Your task to perform on an android device: turn on showing notifications on the lock screen Image 0: 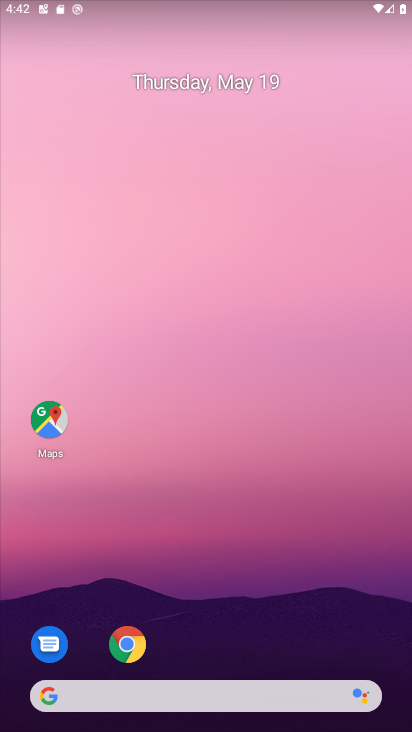
Step 0: press home button
Your task to perform on an android device: turn on showing notifications on the lock screen Image 1: 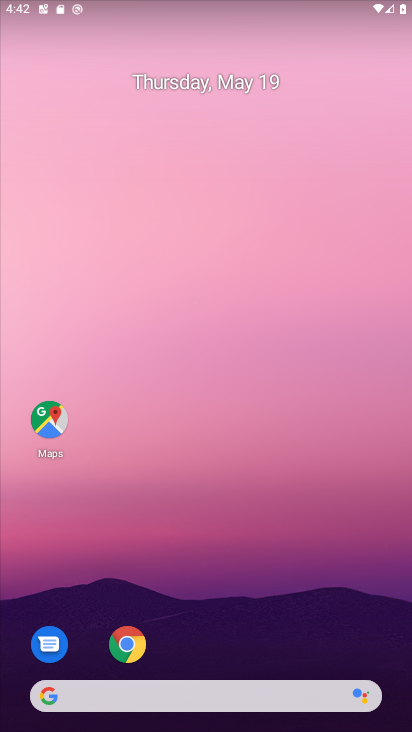
Step 1: drag from (261, 658) to (372, 42)
Your task to perform on an android device: turn on showing notifications on the lock screen Image 2: 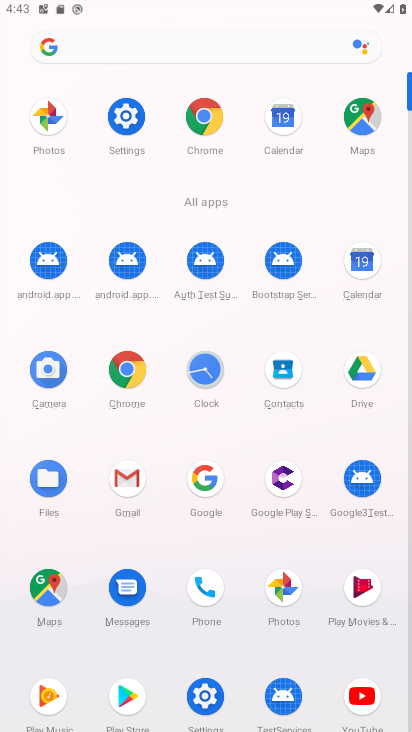
Step 2: click (195, 715)
Your task to perform on an android device: turn on showing notifications on the lock screen Image 3: 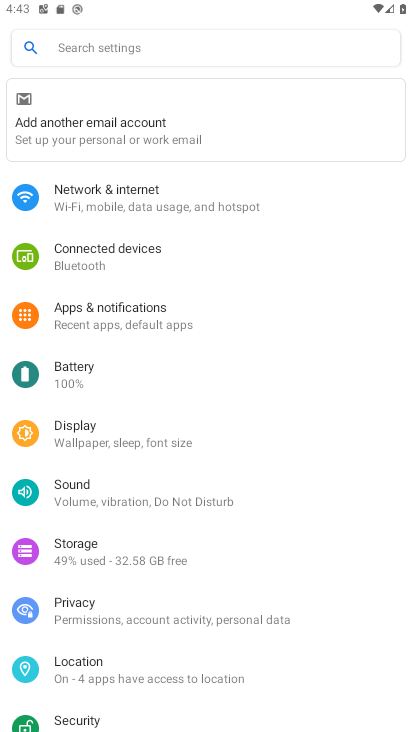
Step 3: click (170, 315)
Your task to perform on an android device: turn on showing notifications on the lock screen Image 4: 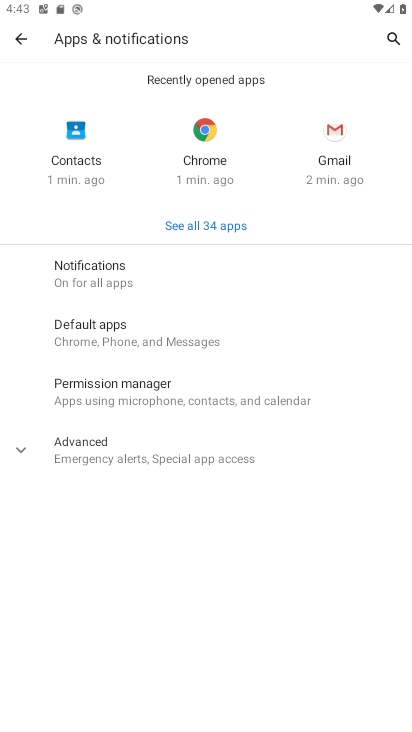
Step 4: click (158, 276)
Your task to perform on an android device: turn on showing notifications on the lock screen Image 5: 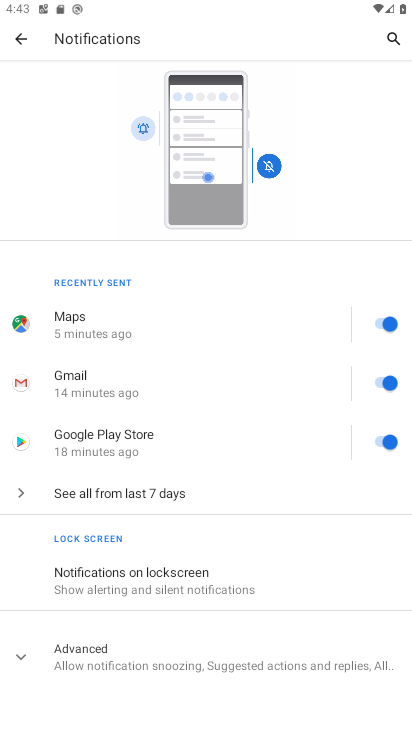
Step 5: click (135, 594)
Your task to perform on an android device: turn on showing notifications on the lock screen Image 6: 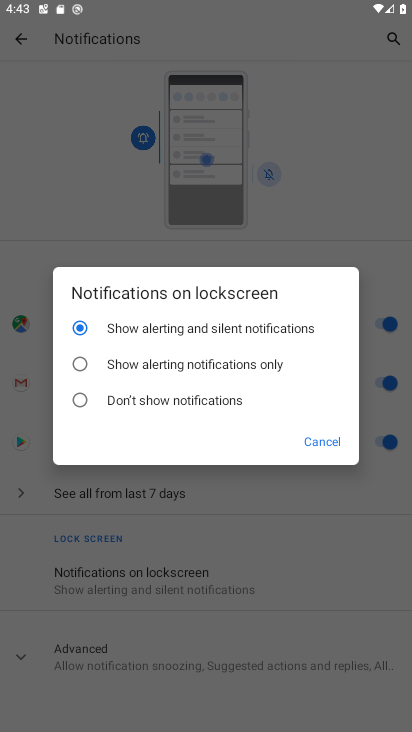
Step 6: click (154, 372)
Your task to perform on an android device: turn on showing notifications on the lock screen Image 7: 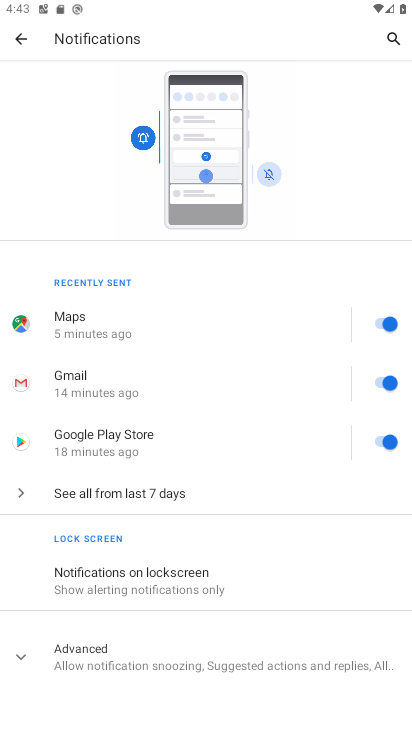
Step 7: task complete